Your task to perform on an android device: manage bookmarks in the chrome app Image 0: 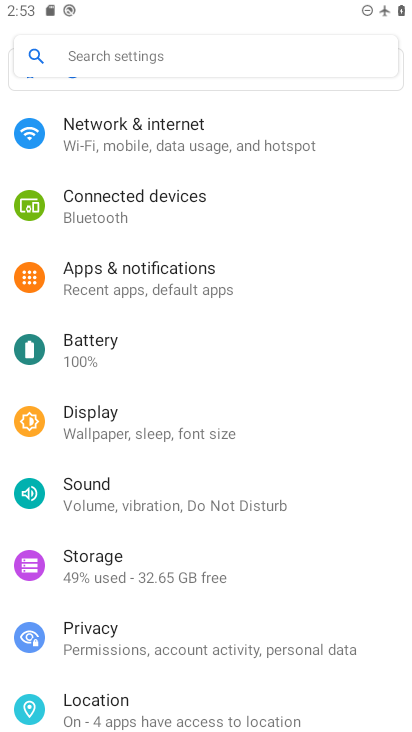
Step 0: press home button
Your task to perform on an android device: manage bookmarks in the chrome app Image 1: 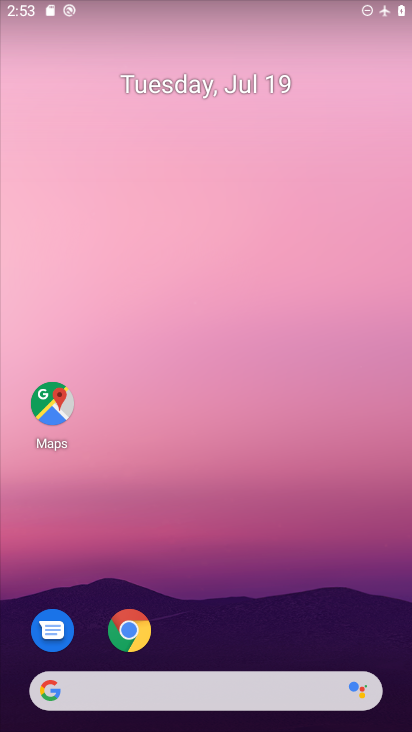
Step 1: click (129, 633)
Your task to perform on an android device: manage bookmarks in the chrome app Image 2: 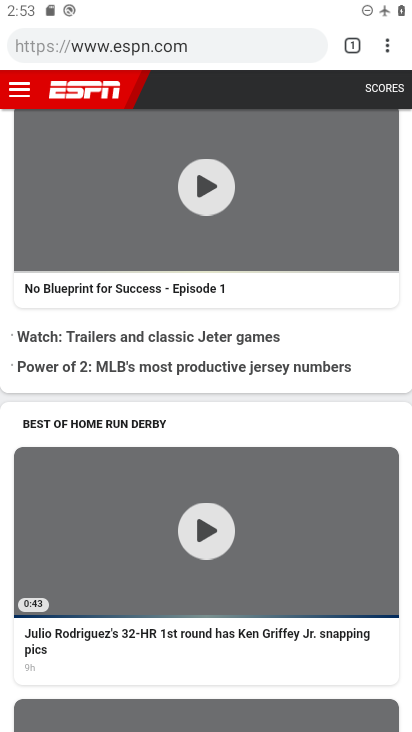
Step 2: click (384, 53)
Your task to perform on an android device: manage bookmarks in the chrome app Image 3: 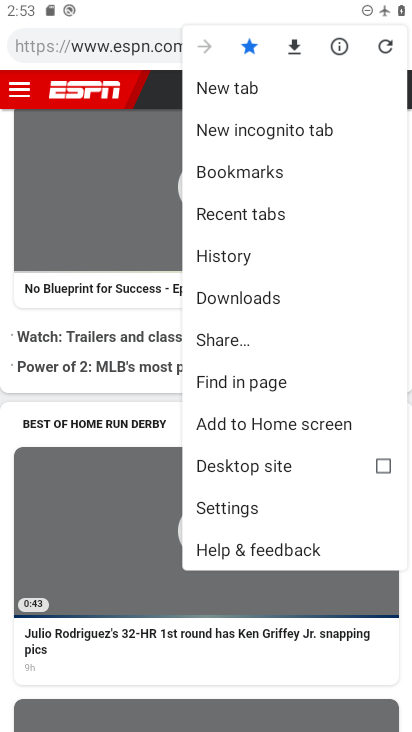
Step 3: click (226, 176)
Your task to perform on an android device: manage bookmarks in the chrome app Image 4: 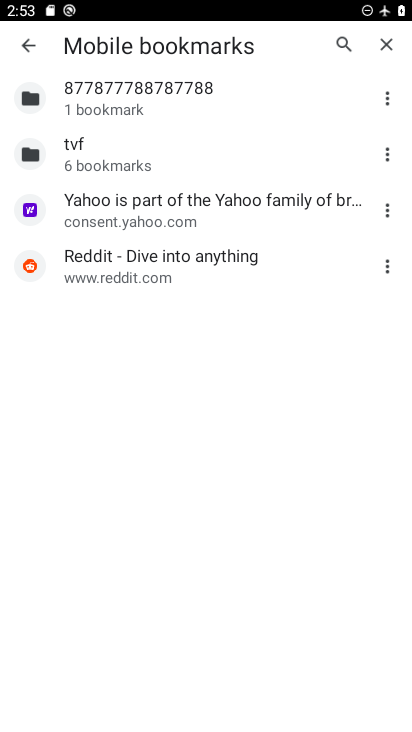
Step 4: click (103, 272)
Your task to perform on an android device: manage bookmarks in the chrome app Image 5: 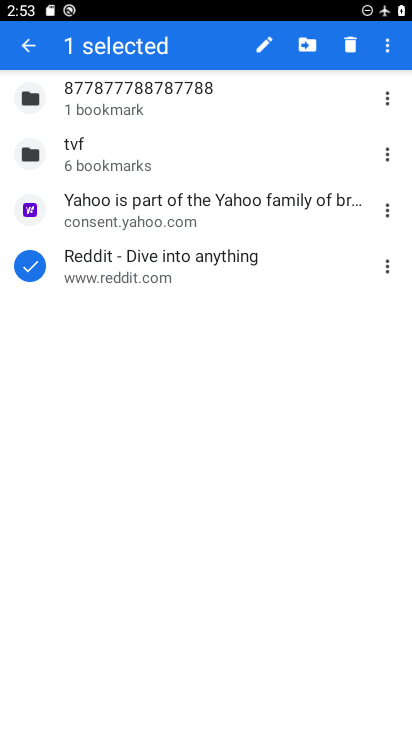
Step 5: click (305, 44)
Your task to perform on an android device: manage bookmarks in the chrome app Image 6: 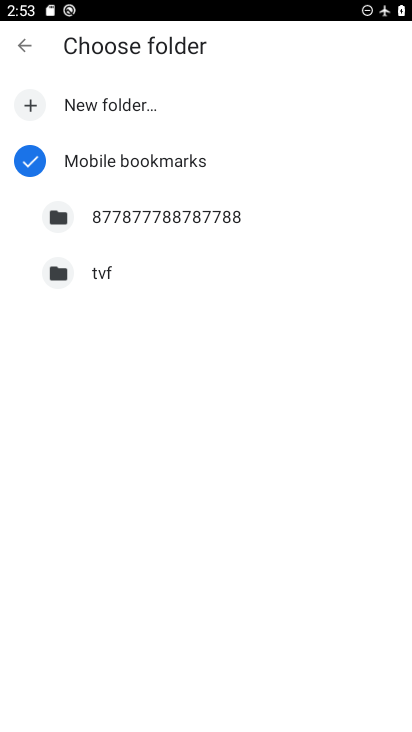
Step 6: click (134, 208)
Your task to perform on an android device: manage bookmarks in the chrome app Image 7: 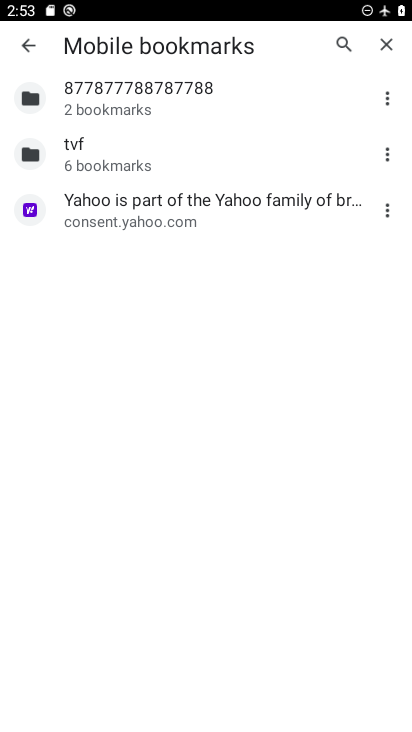
Step 7: task complete